Your task to perform on an android device: make emails show in primary in the gmail app Image 0: 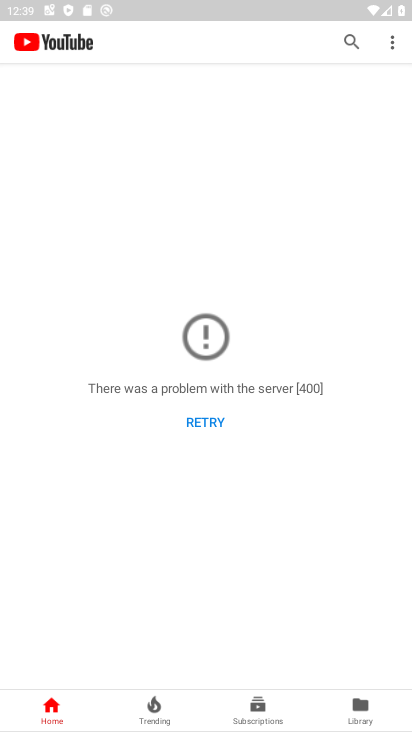
Step 0: press home button
Your task to perform on an android device: make emails show in primary in the gmail app Image 1: 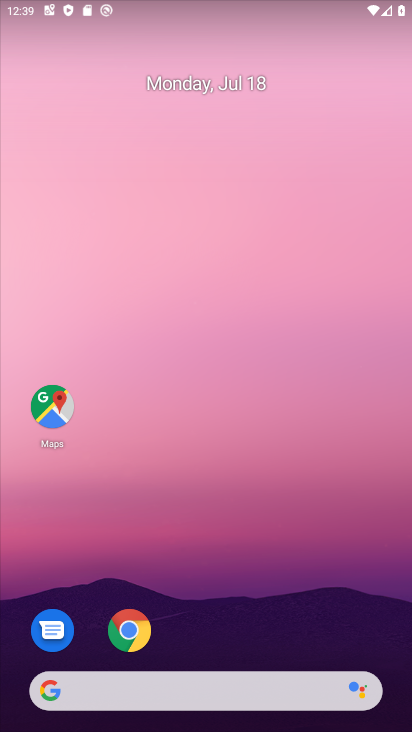
Step 1: drag from (275, 618) to (238, 53)
Your task to perform on an android device: make emails show in primary in the gmail app Image 2: 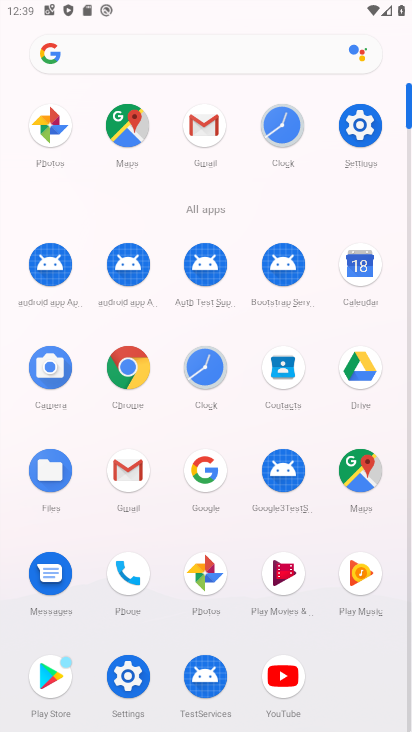
Step 2: click (210, 126)
Your task to perform on an android device: make emails show in primary in the gmail app Image 3: 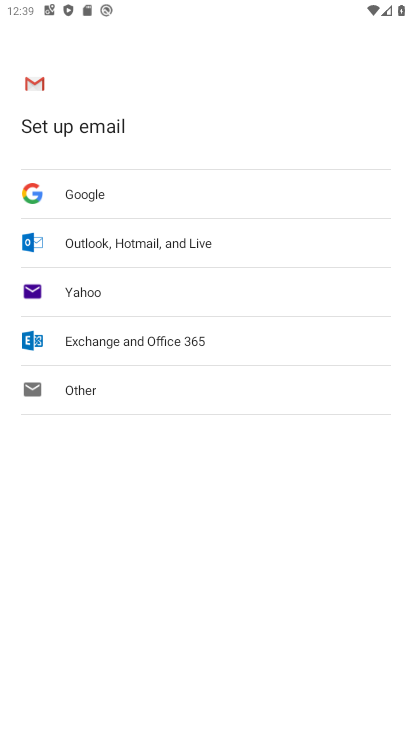
Step 3: press back button
Your task to perform on an android device: make emails show in primary in the gmail app Image 4: 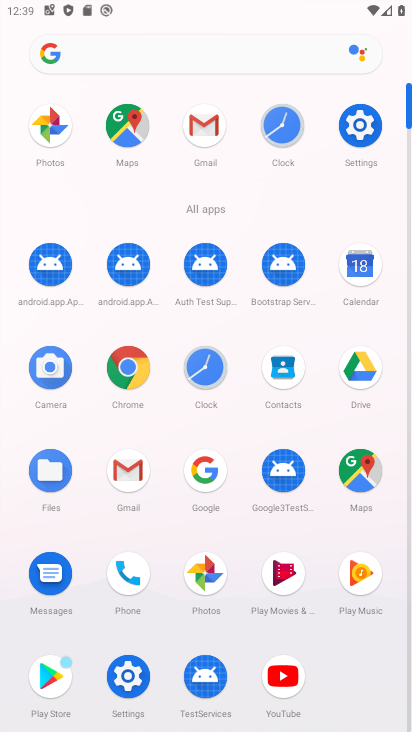
Step 4: click (206, 119)
Your task to perform on an android device: make emails show in primary in the gmail app Image 5: 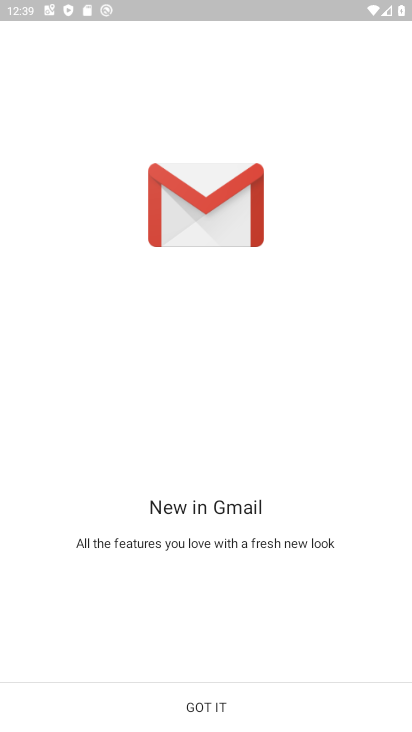
Step 5: click (213, 713)
Your task to perform on an android device: make emails show in primary in the gmail app Image 6: 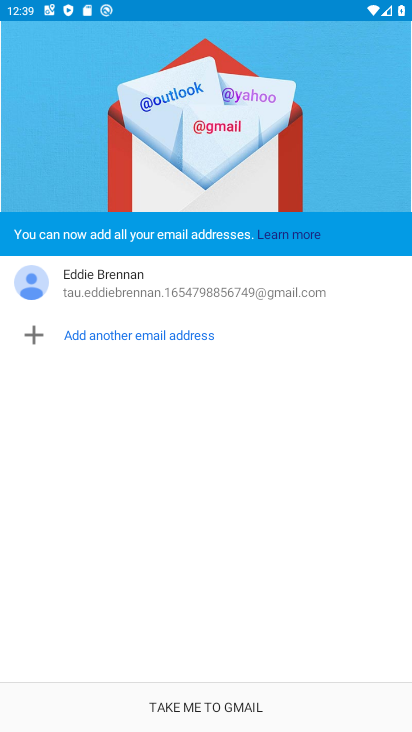
Step 6: click (213, 713)
Your task to perform on an android device: make emails show in primary in the gmail app Image 7: 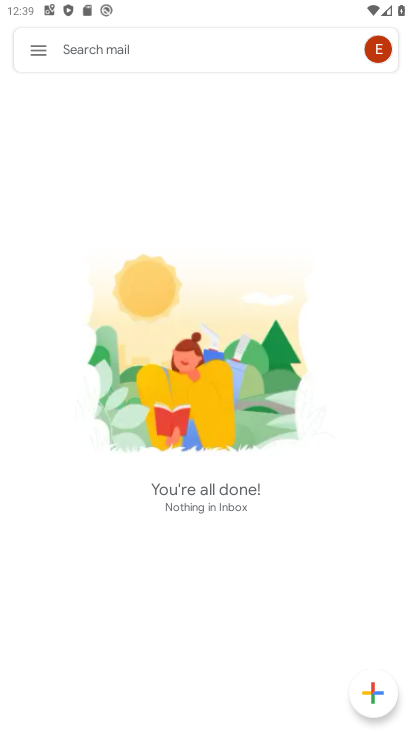
Step 7: click (40, 47)
Your task to perform on an android device: make emails show in primary in the gmail app Image 8: 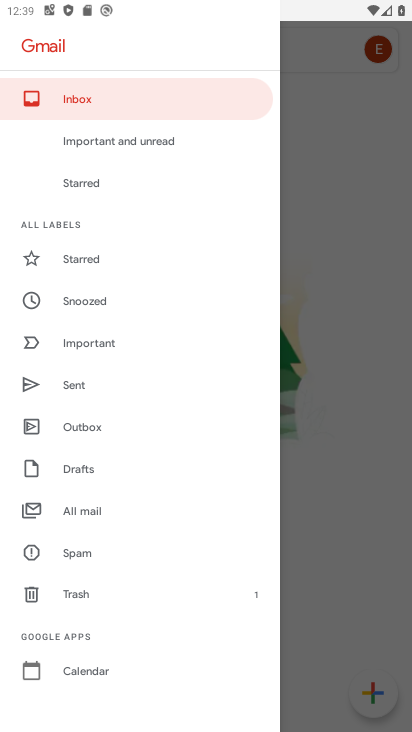
Step 8: drag from (107, 657) to (122, 319)
Your task to perform on an android device: make emails show in primary in the gmail app Image 9: 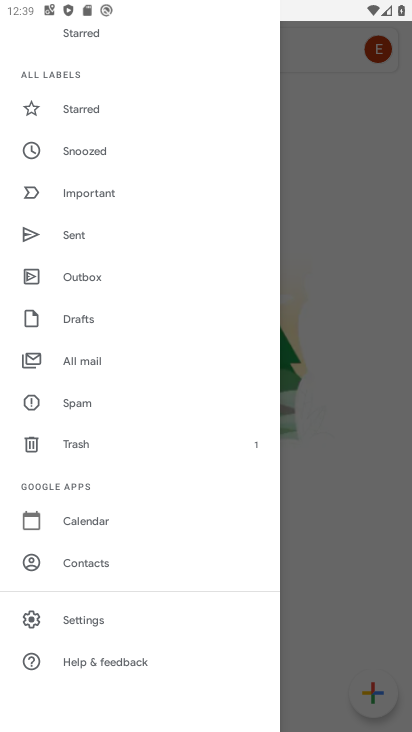
Step 9: click (95, 614)
Your task to perform on an android device: make emails show in primary in the gmail app Image 10: 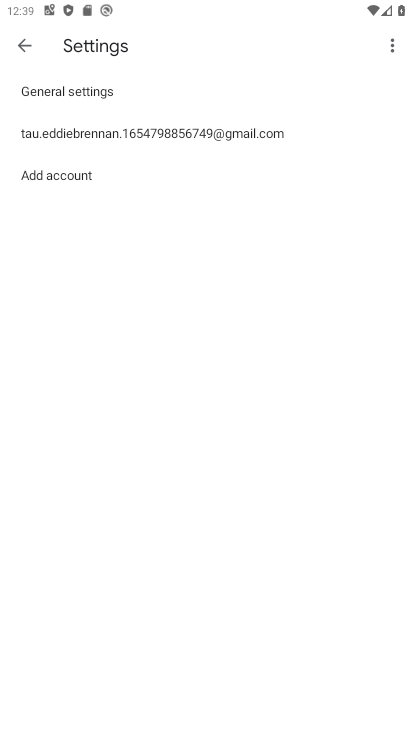
Step 10: click (196, 127)
Your task to perform on an android device: make emails show in primary in the gmail app Image 11: 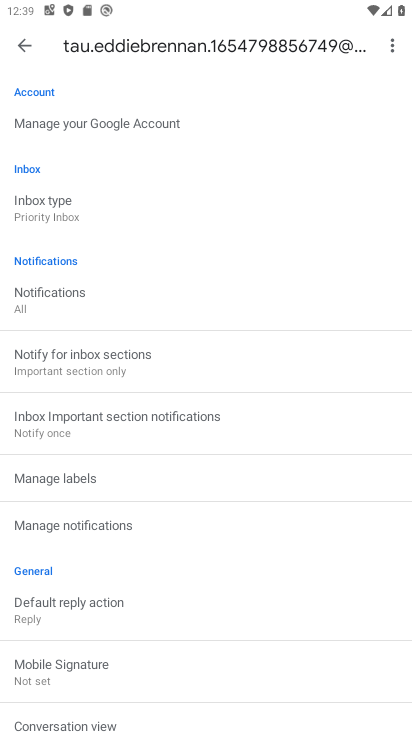
Step 11: click (197, 192)
Your task to perform on an android device: make emails show in primary in the gmail app Image 12: 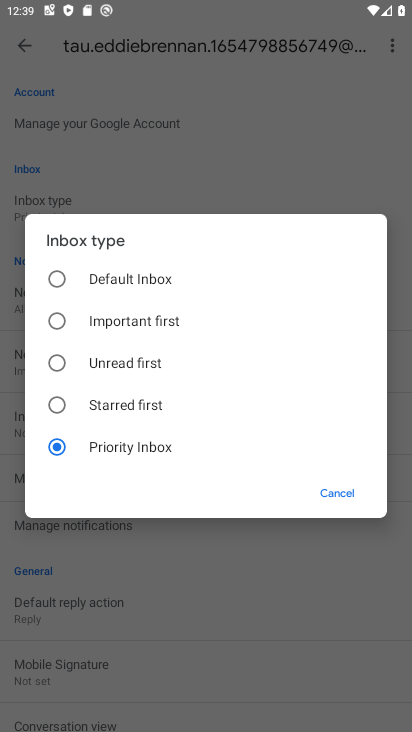
Step 12: click (150, 279)
Your task to perform on an android device: make emails show in primary in the gmail app Image 13: 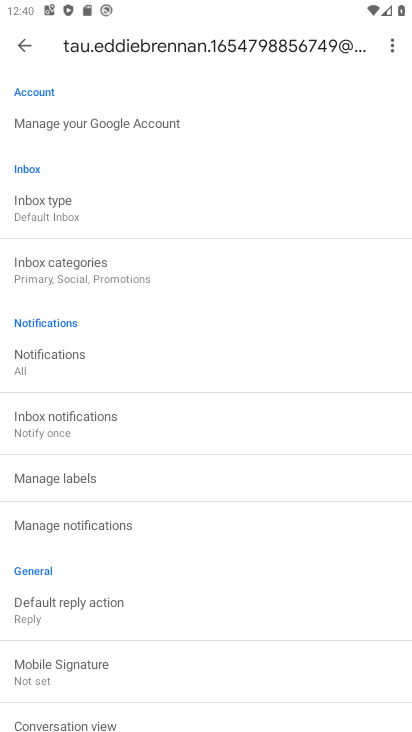
Step 13: task complete